Your task to perform on an android device: Open maps Image 0: 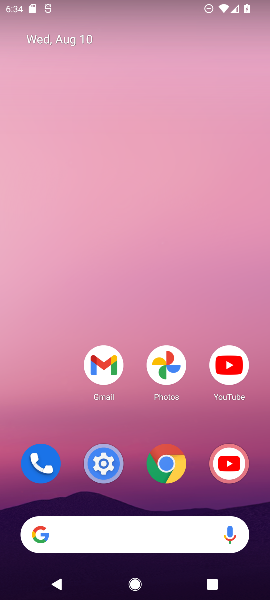
Step 0: drag from (134, 492) to (152, 69)
Your task to perform on an android device: Open maps Image 1: 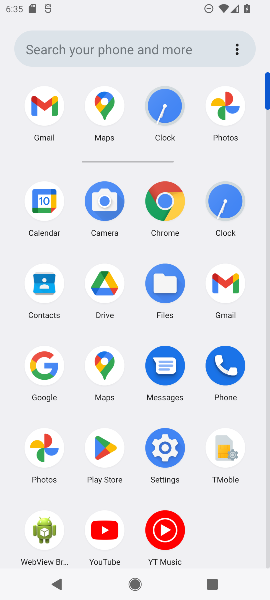
Step 1: click (100, 105)
Your task to perform on an android device: Open maps Image 2: 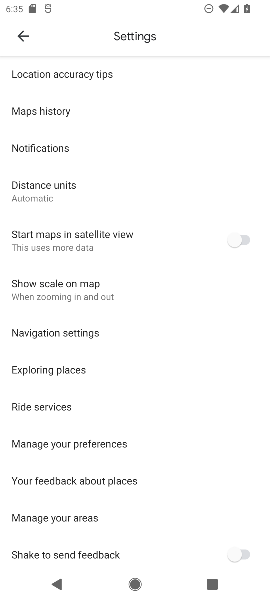
Step 2: click (28, 37)
Your task to perform on an android device: Open maps Image 3: 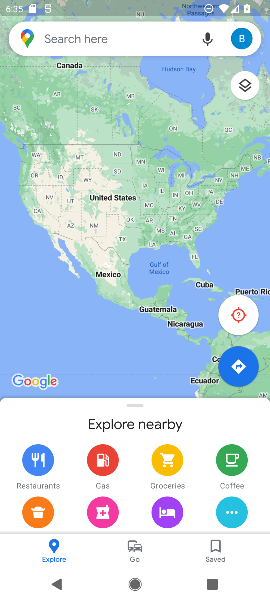
Step 3: task complete